Your task to perform on an android device: Go to CNN.com Image 0: 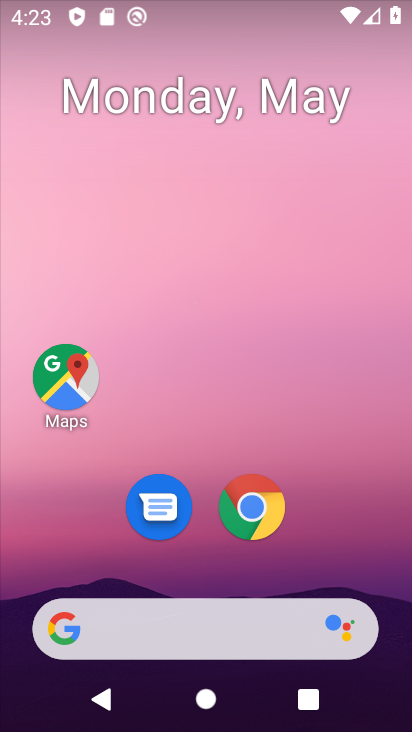
Step 0: click (256, 520)
Your task to perform on an android device: Go to CNN.com Image 1: 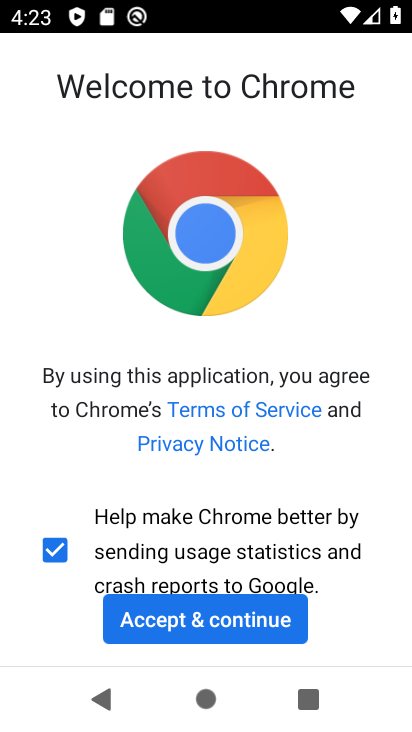
Step 1: click (180, 617)
Your task to perform on an android device: Go to CNN.com Image 2: 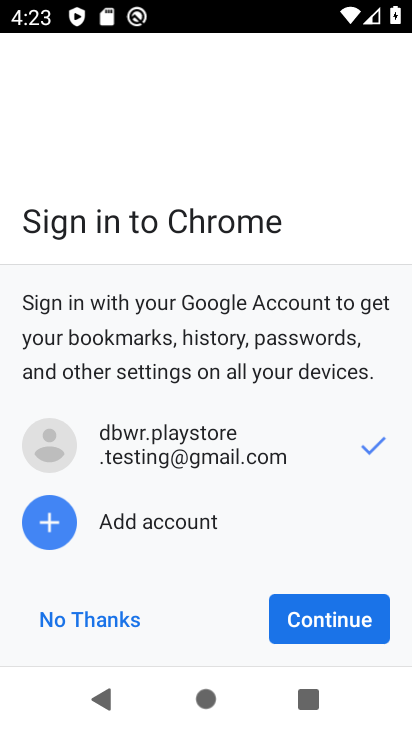
Step 2: click (320, 631)
Your task to perform on an android device: Go to CNN.com Image 3: 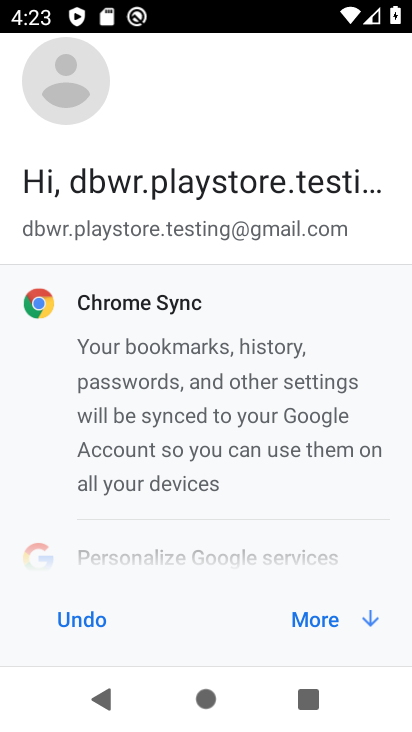
Step 3: click (320, 631)
Your task to perform on an android device: Go to CNN.com Image 4: 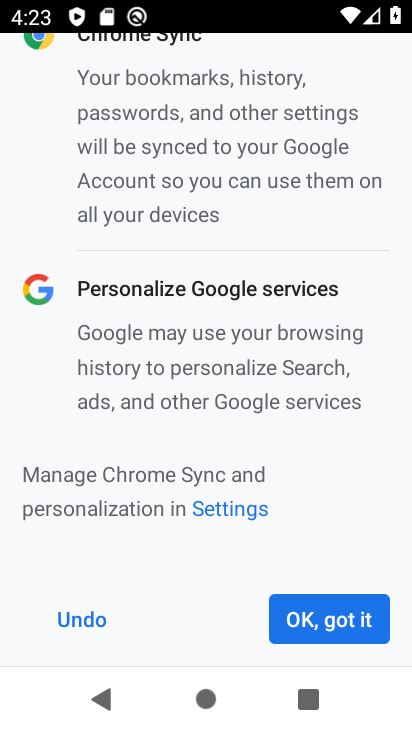
Step 4: click (320, 631)
Your task to perform on an android device: Go to CNN.com Image 5: 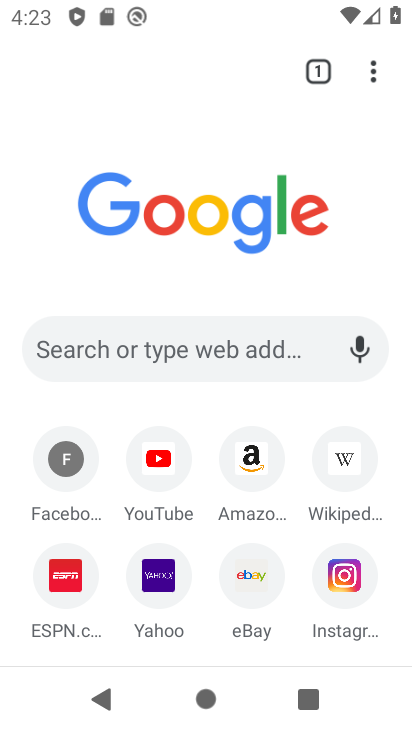
Step 5: click (210, 352)
Your task to perform on an android device: Go to CNN.com Image 6: 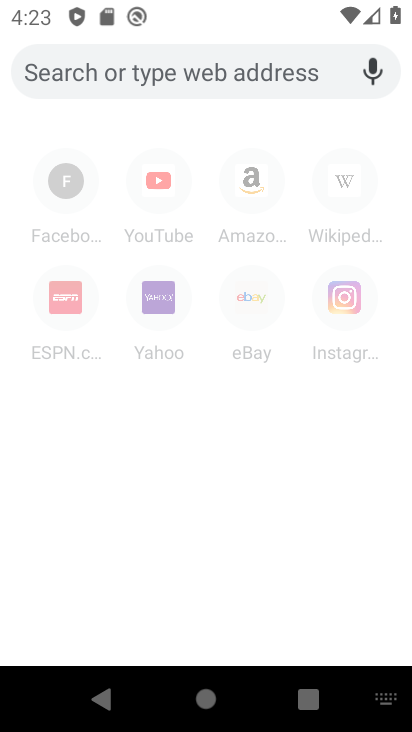
Step 6: type "cnn.com"
Your task to perform on an android device: Go to CNN.com Image 7: 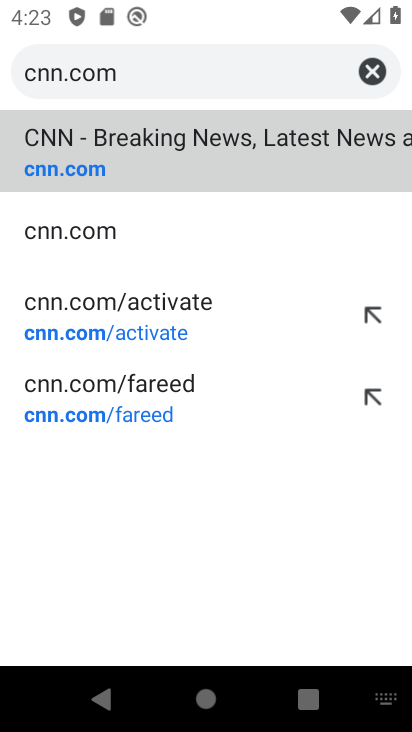
Step 7: click (60, 165)
Your task to perform on an android device: Go to CNN.com Image 8: 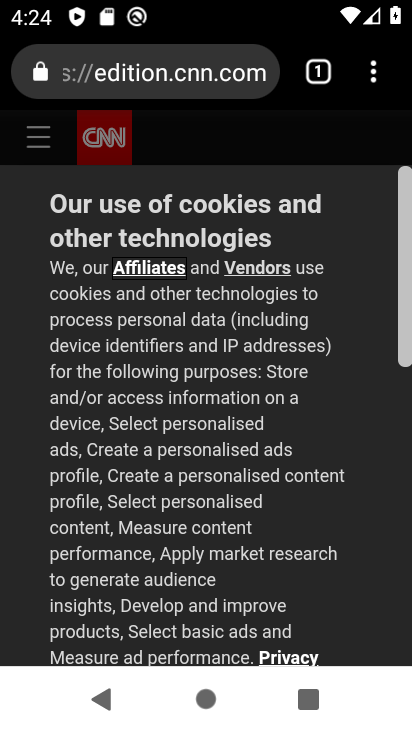
Step 8: task complete